Your task to perform on an android device: find snoozed emails in the gmail app Image 0: 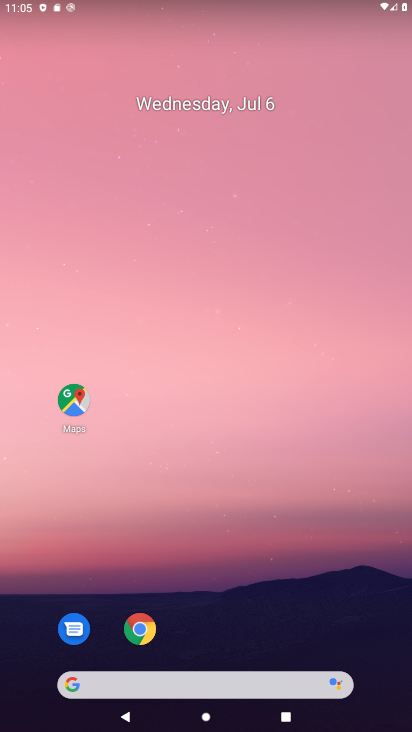
Step 0: drag from (339, 599) to (347, 162)
Your task to perform on an android device: find snoozed emails in the gmail app Image 1: 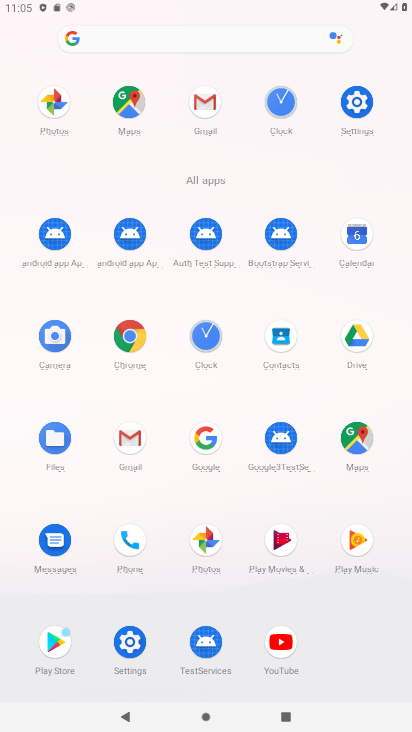
Step 1: click (138, 446)
Your task to perform on an android device: find snoozed emails in the gmail app Image 2: 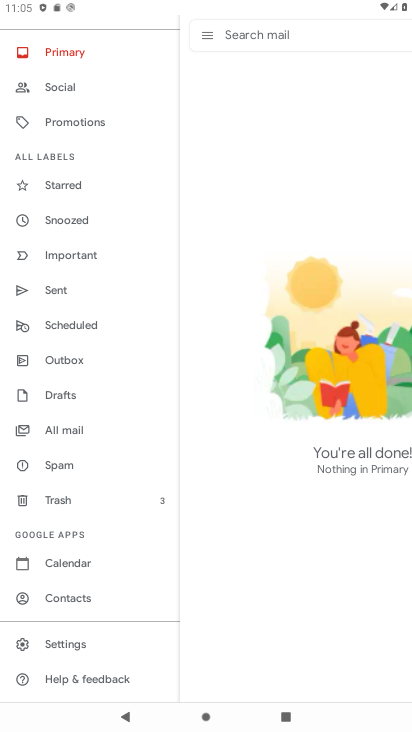
Step 2: click (84, 224)
Your task to perform on an android device: find snoozed emails in the gmail app Image 3: 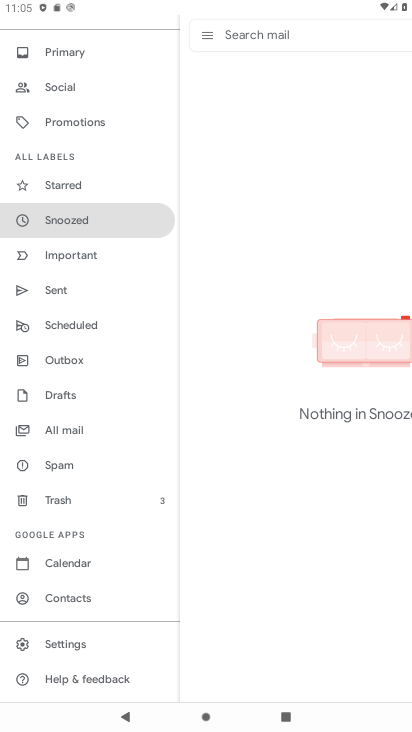
Step 3: task complete